Your task to perform on an android device: uninstall "Reddit" Image 0: 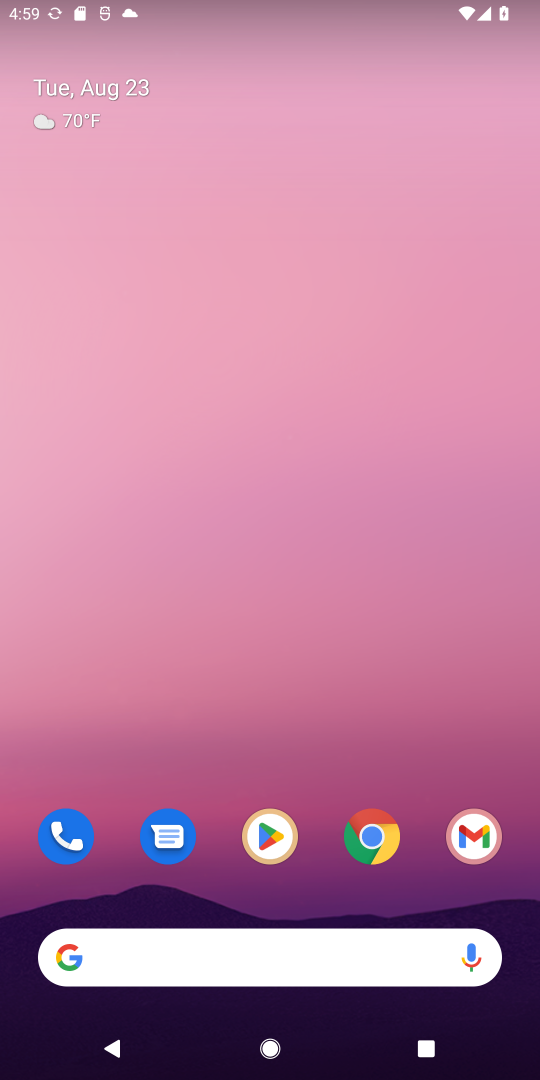
Step 0: click (266, 829)
Your task to perform on an android device: uninstall "Reddit" Image 1: 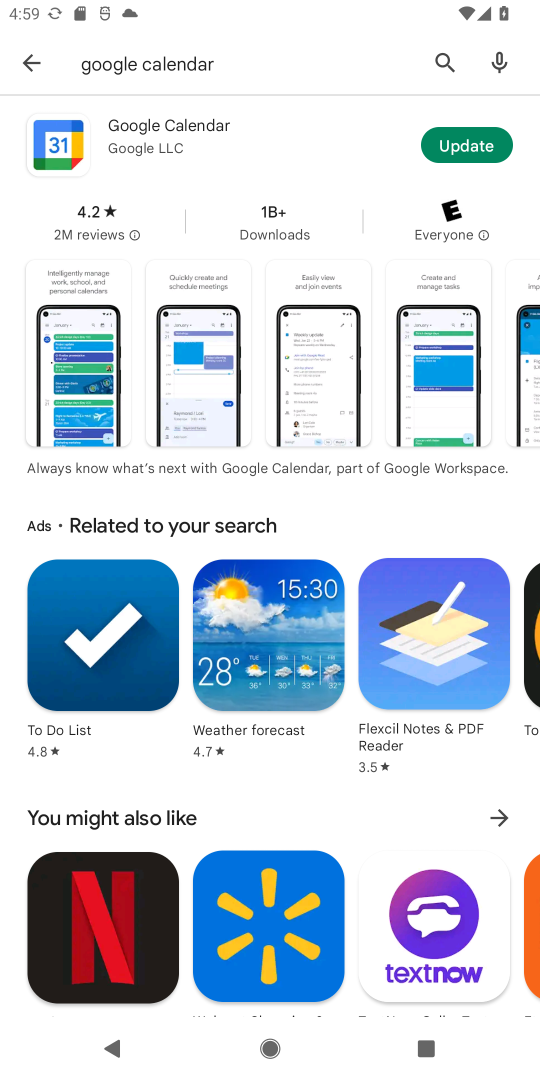
Step 1: click (439, 51)
Your task to perform on an android device: uninstall "Reddit" Image 2: 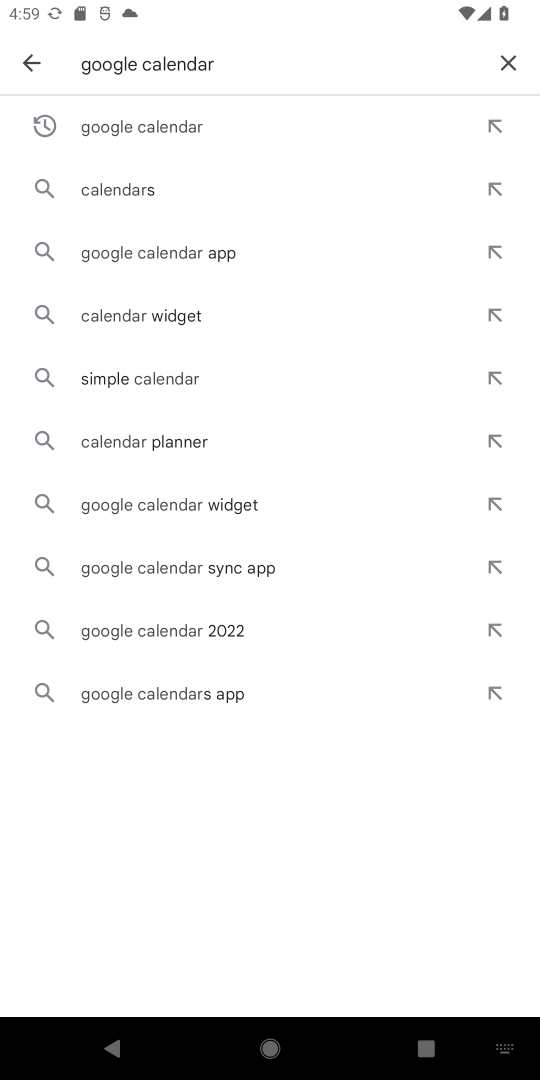
Step 2: click (508, 55)
Your task to perform on an android device: uninstall "Reddit" Image 3: 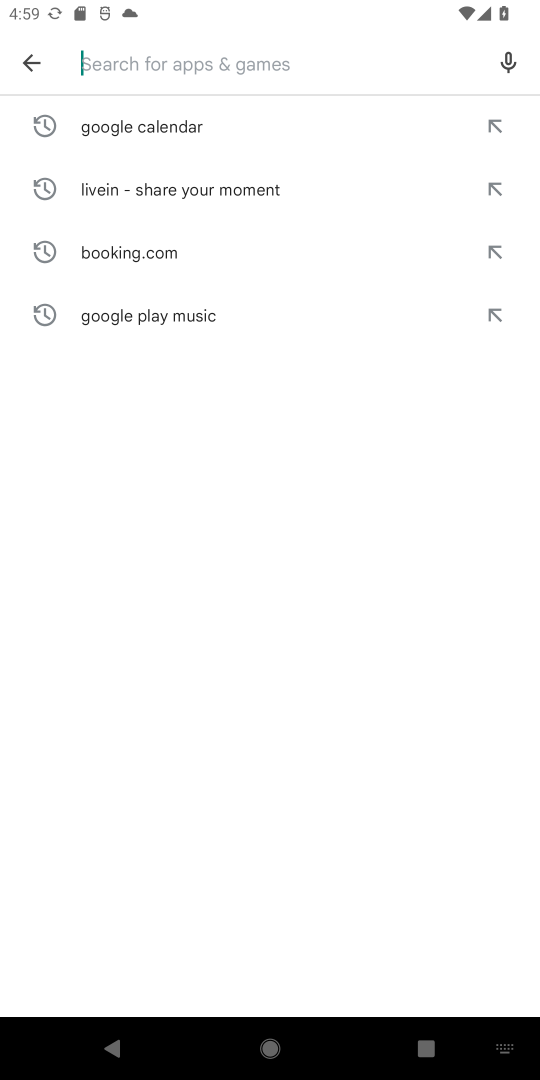
Step 3: type "Reddit"
Your task to perform on an android device: uninstall "Reddit" Image 4: 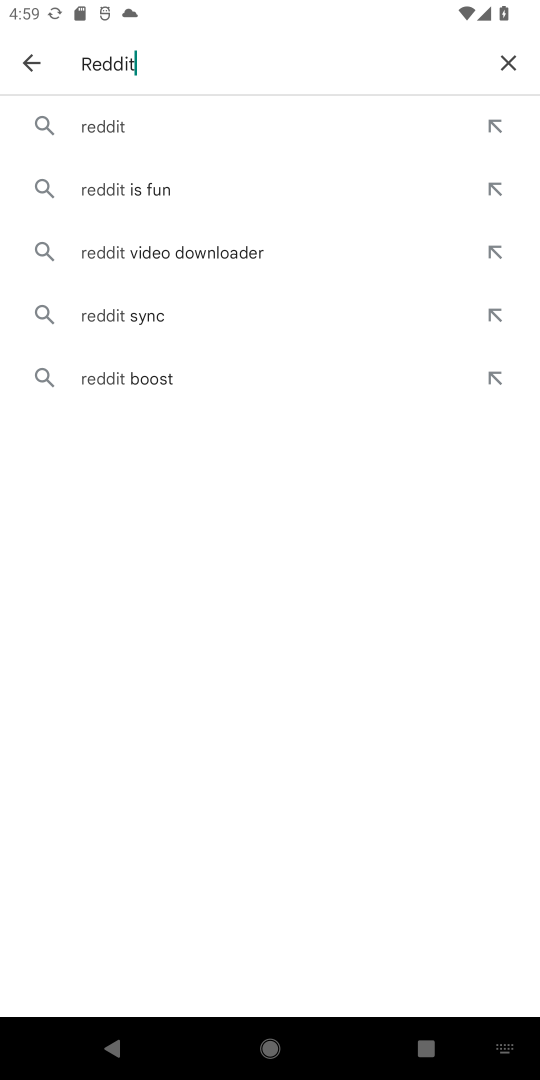
Step 4: click (107, 123)
Your task to perform on an android device: uninstall "Reddit" Image 5: 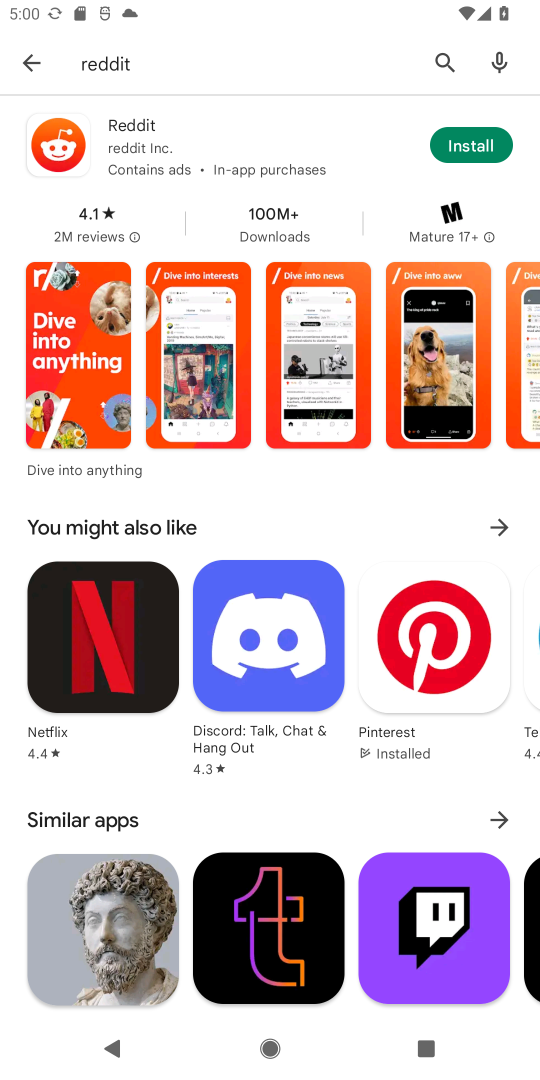
Step 5: task complete